Your task to perform on an android device: snooze an email in the gmail app Image 0: 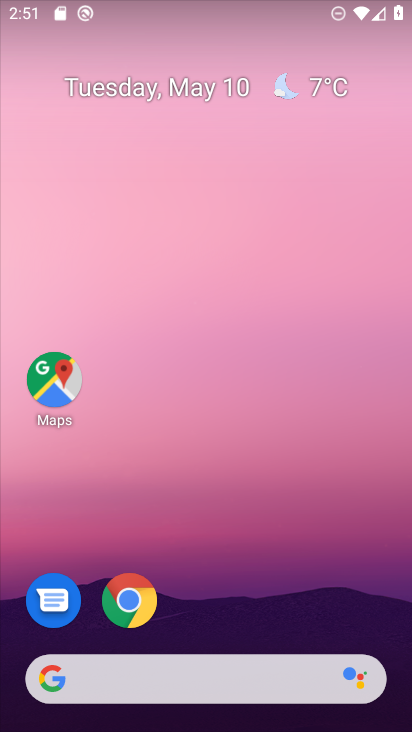
Step 0: drag from (199, 680) to (114, 147)
Your task to perform on an android device: snooze an email in the gmail app Image 1: 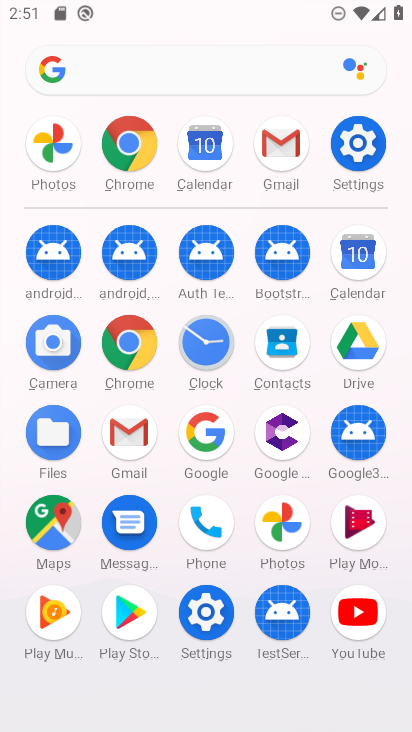
Step 1: click (275, 142)
Your task to perform on an android device: snooze an email in the gmail app Image 2: 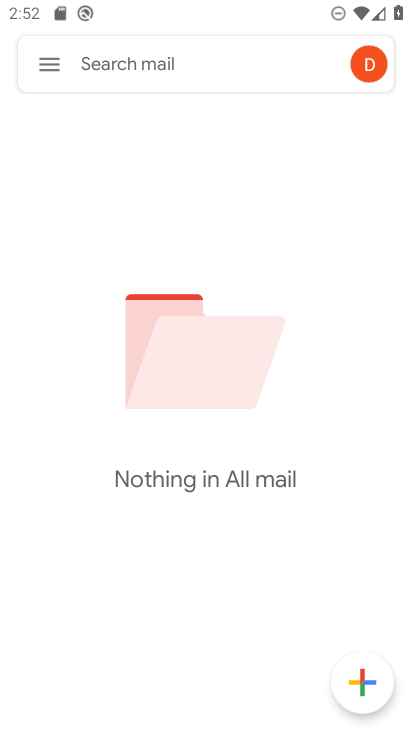
Step 2: click (37, 68)
Your task to perform on an android device: snooze an email in the gmail app Image 3: 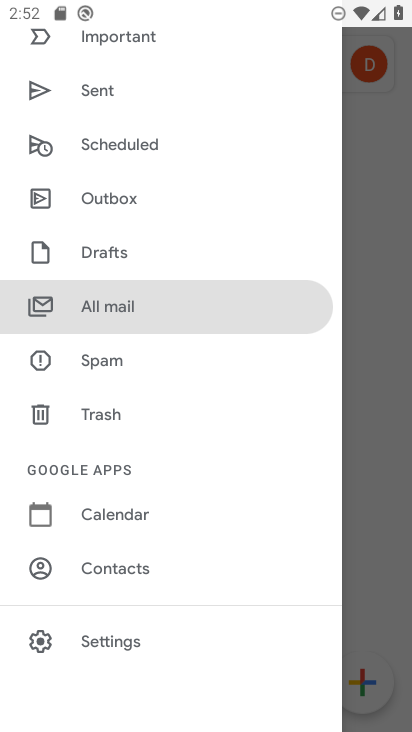
Step 3: click (114, 296)
Your task to perform on an android device: snooze an email in the gmail app Image 4: 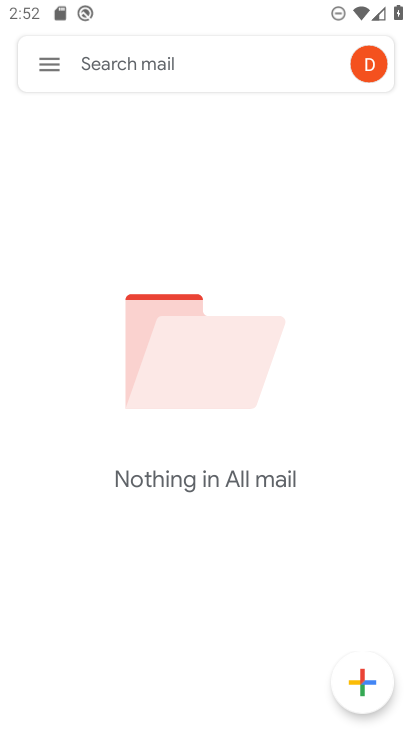
Step 4: task complete